Your task to perform on an android device: Go to wifi settings Image 0: 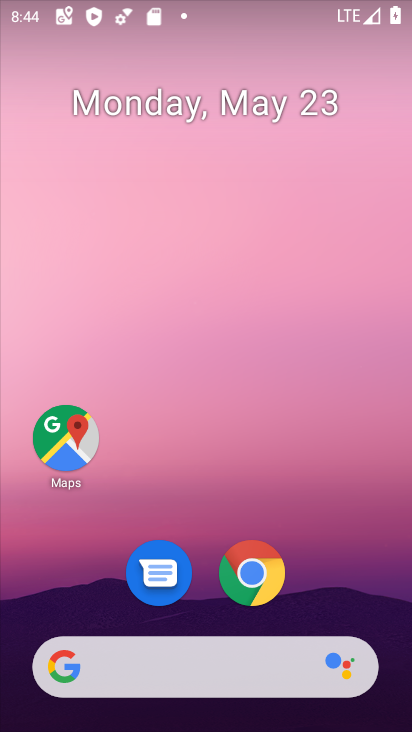
Step 0: drag from (300, 402) to (292, 15)
Your task to perform on an android device: Go to wifi settings Image 1: 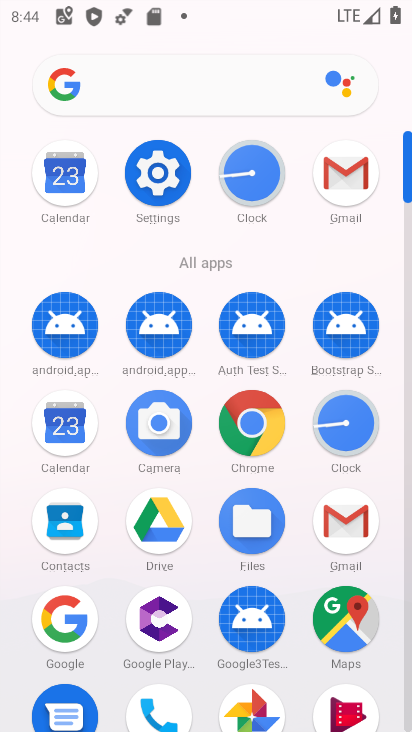
Step 1: click (171, 168)
Your task to perform on an android device: Go to wifi settings Image 2: 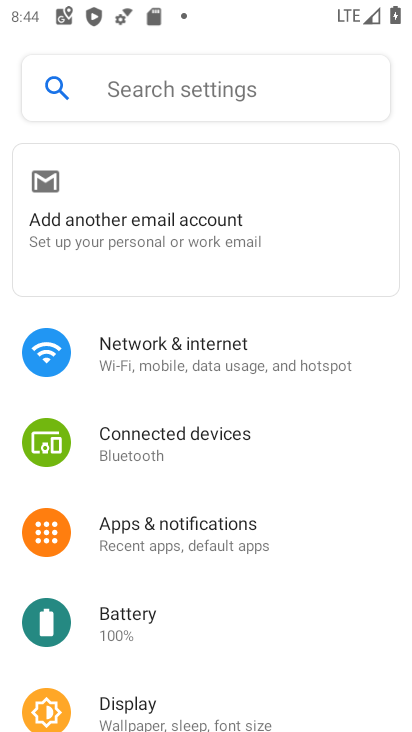
Step 2: click (165, 360)
Your task to perform on an android device: Go to wifi settings Image 3: 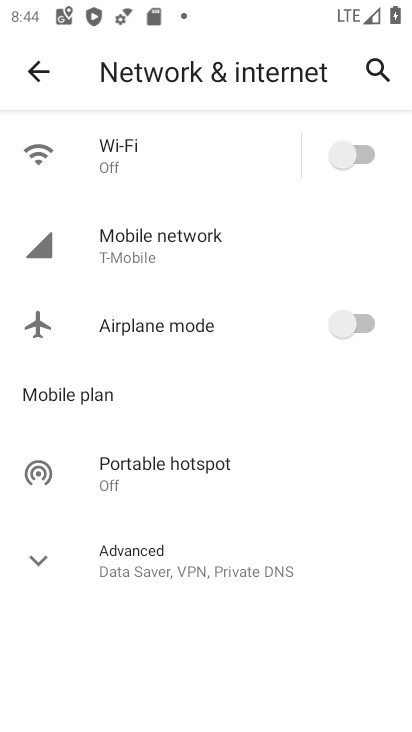
Step 3: click (178, 162)
Your task to perform on an android device: Go to wifi settings Image 4: 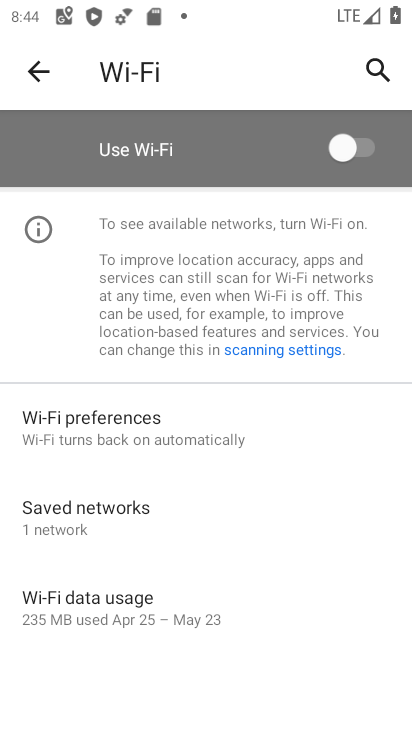
Step 4: task complete